Your task to perform on an android device: turn on improve location accuracy Image 0: 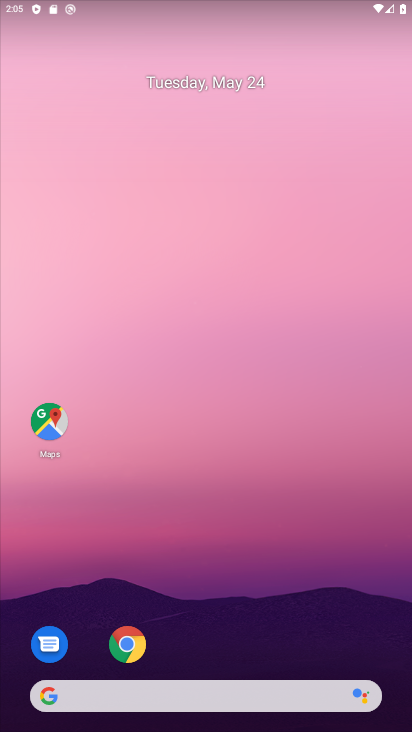
Step 0: press home button
Your task to perform on an android device: turn on improve location accuracy Image 1: 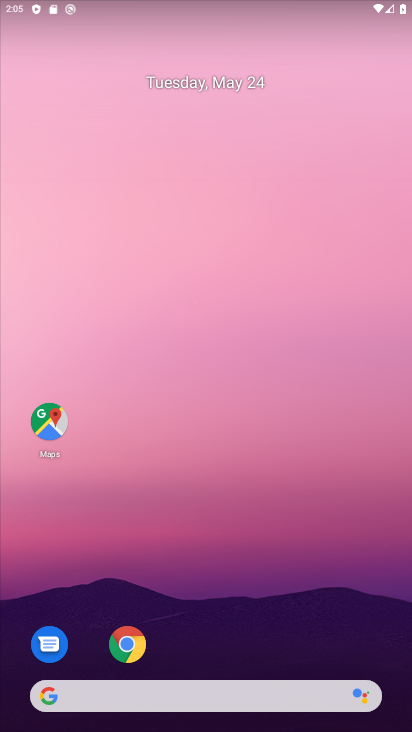
Step 1: drag from (229, 628) to (224, 104)
Your task to perform on an android device: turn on improve location accuracy Image 2: 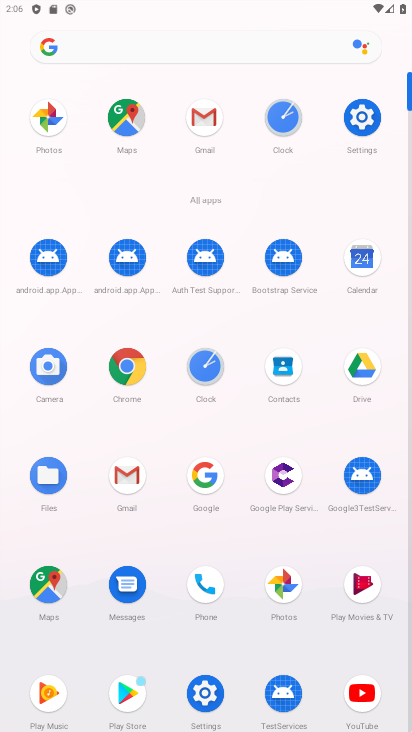
Step 2: click (204, 703)
Your task to perform on an android device: turn on improve location accuracy Image 3: 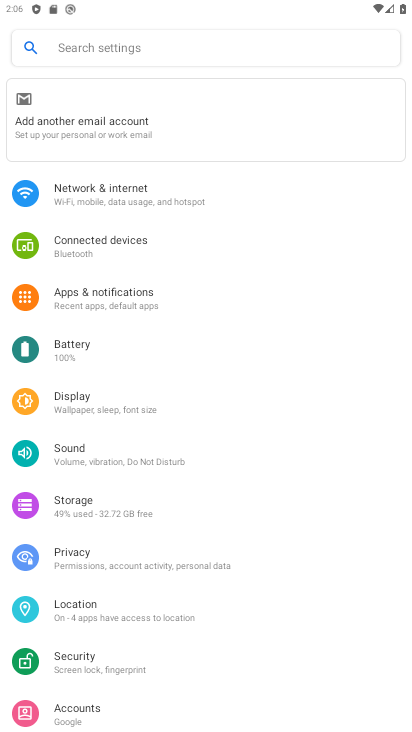
Step 3: click (93, 611)
Your task to perform on an android device: turn on improve location accuracy Image 4: 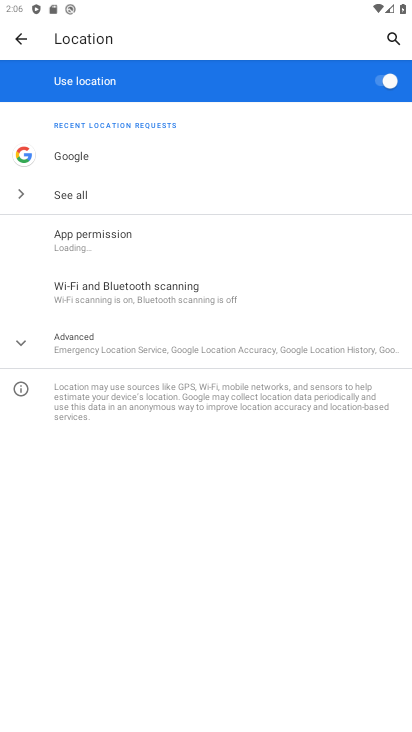
Step 4: click (70, 349)
Your task to perform on an android device: turn on improve location accuracy Image 5: 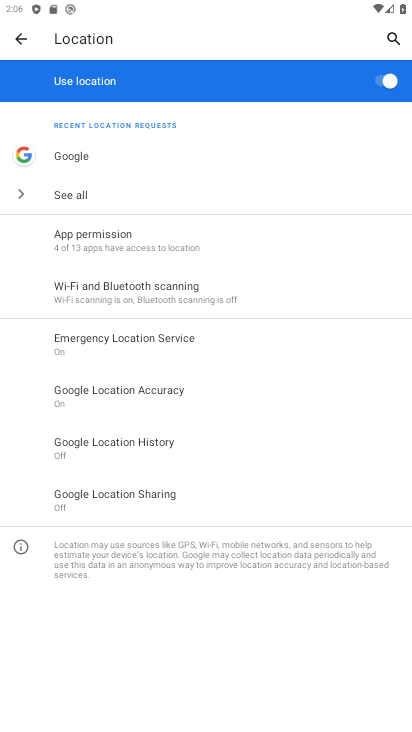
Step 5: click (151, 389)
Your task to perform on an android device: turn on improve location accuracy Image 6: 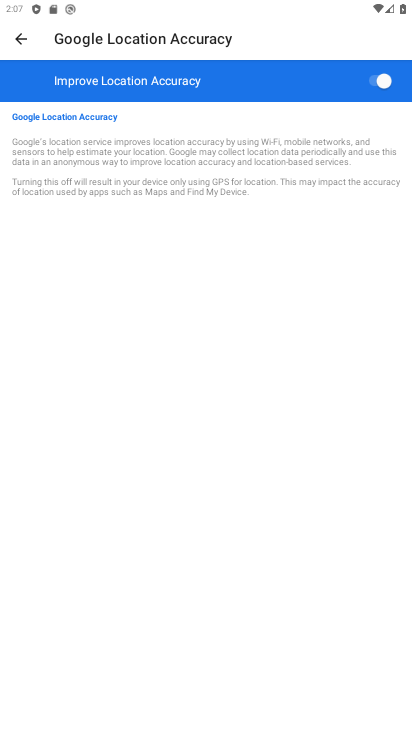
Step 6: task complete